Your task to perform on an android device: Go to display settings Image 0: 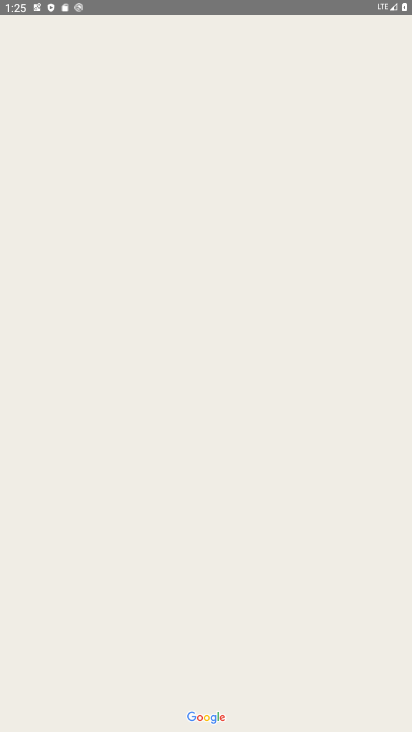
Step 0: click (208, 576)
Your task to perform on an android device: Go to display settings Image 1: 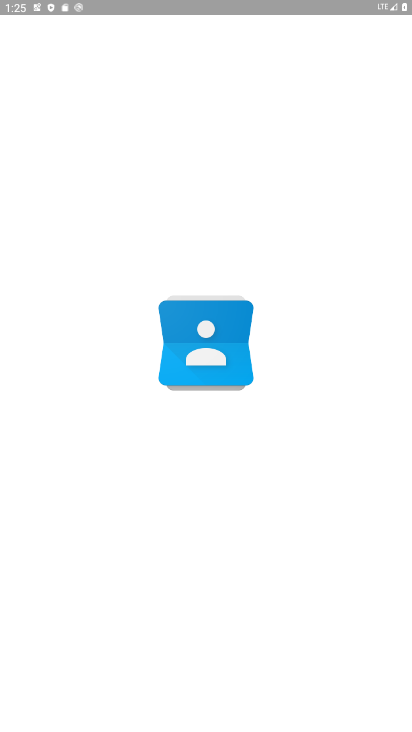
Step 1: drag from (205, 257) to (205, 204)
Your task to perform on an android device: Go to display settings Image 2: 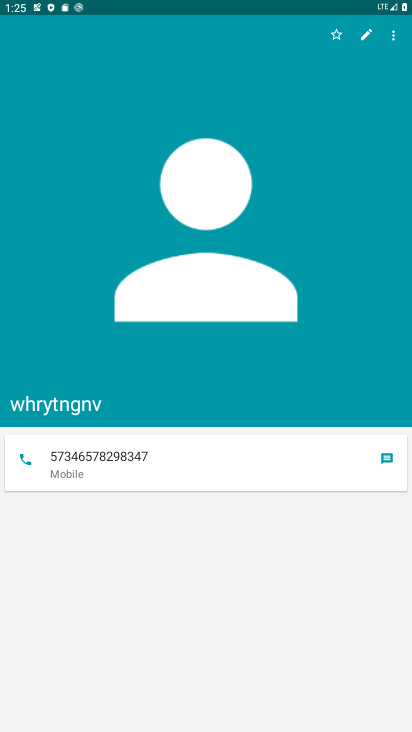
Step 2: press home button
Your task to perform on an android device: Go to display settings Image 3: 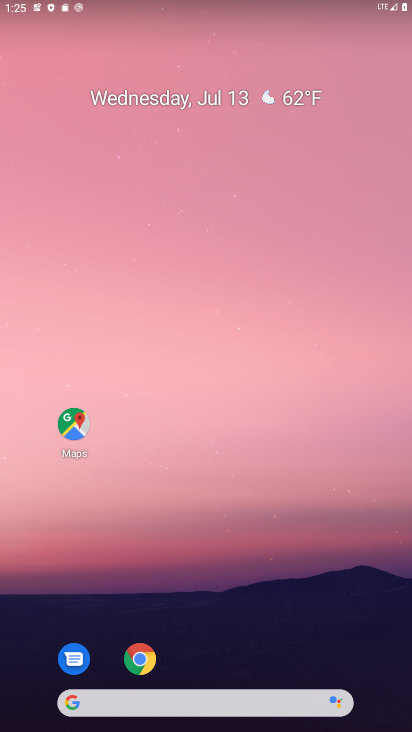
Step 3: drag from (219, 726) to (180, 152)
Your task to perform on an android device: Go to display settings Image 4: 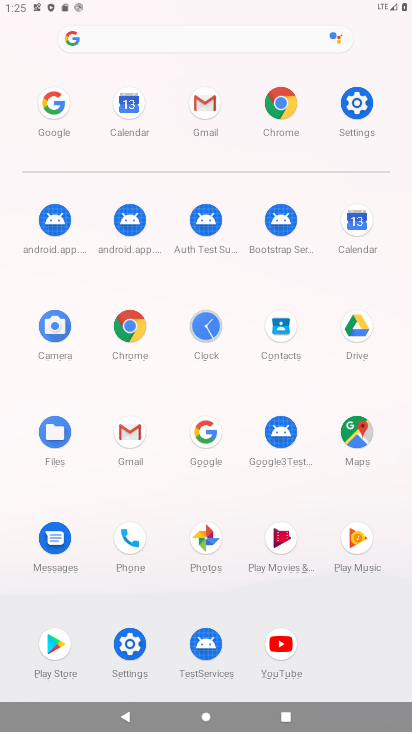
Step 4: click (352, 104)
Your task to perform on an android device: Go to display settings Image 5: 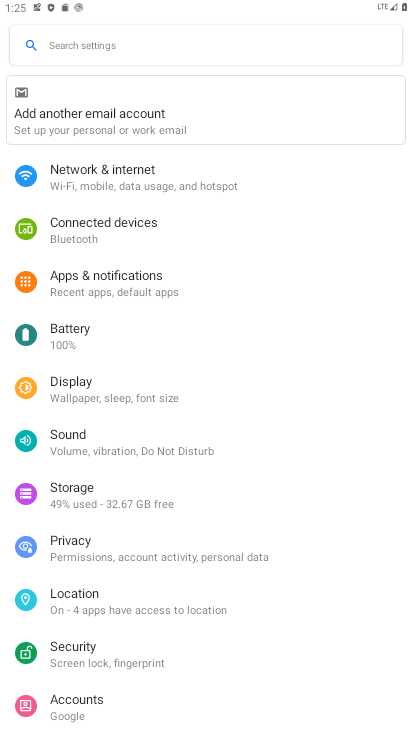
Step 5: click (78, 385)
Your task to perform on an android device: Go to display settings Image 6: 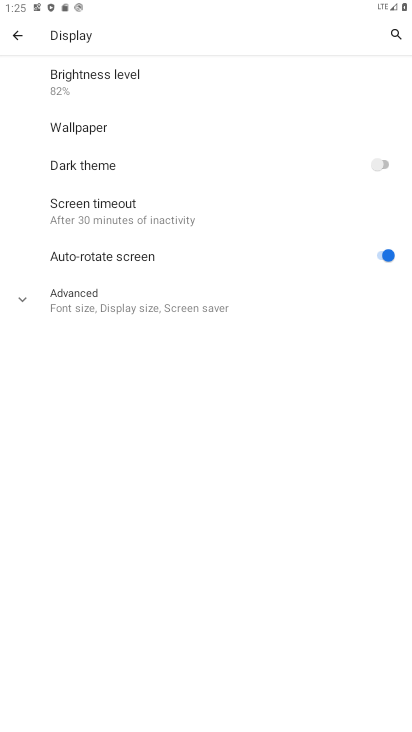
Step 6: task complete